Your task to perform on an android device: open app "Fetch Rewards" (install if not already installed) and go to login screen Image 0: 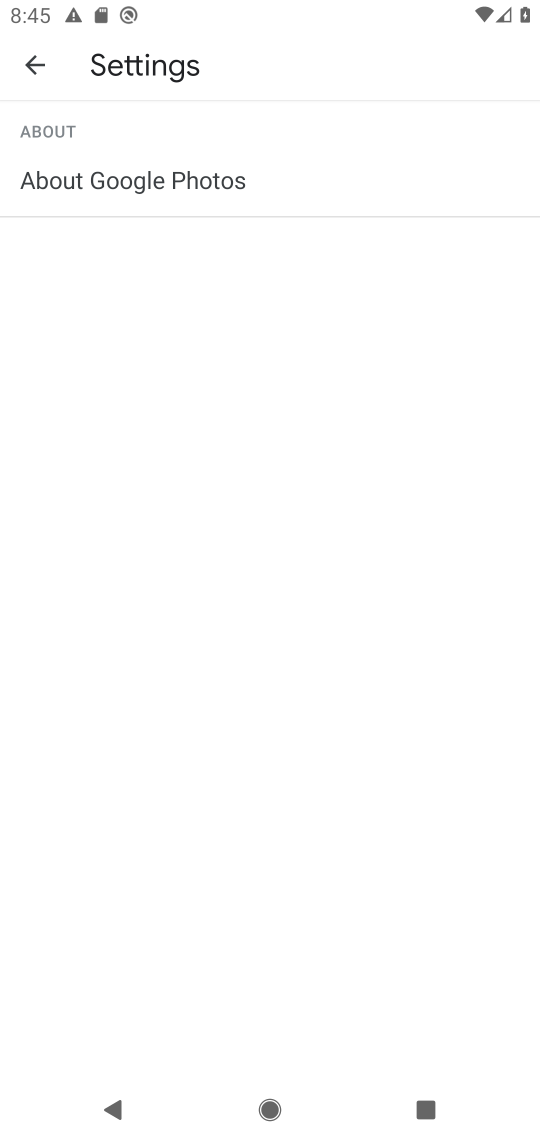
Step 0: press home button
Your task to perform on an android device: open app "Fetch Rewards" (install if not already installed) and go to login screen Image 1: 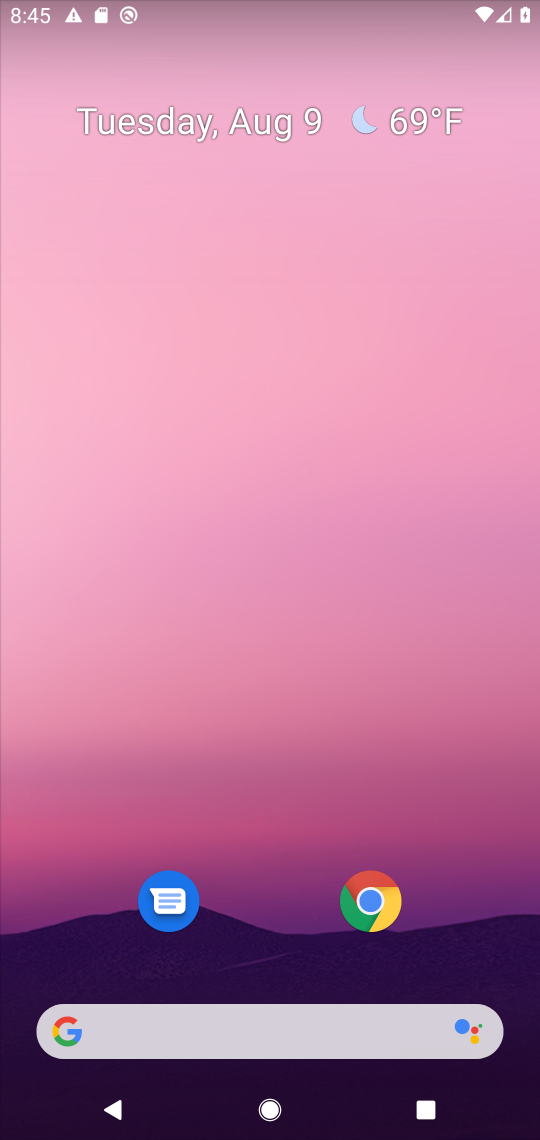
Step 1: drag from (245, 950) to (305, 162)
Your task to perform on an android device: open app "Fetch Rewards" (install if not already installed) and go to login screen Image 2: 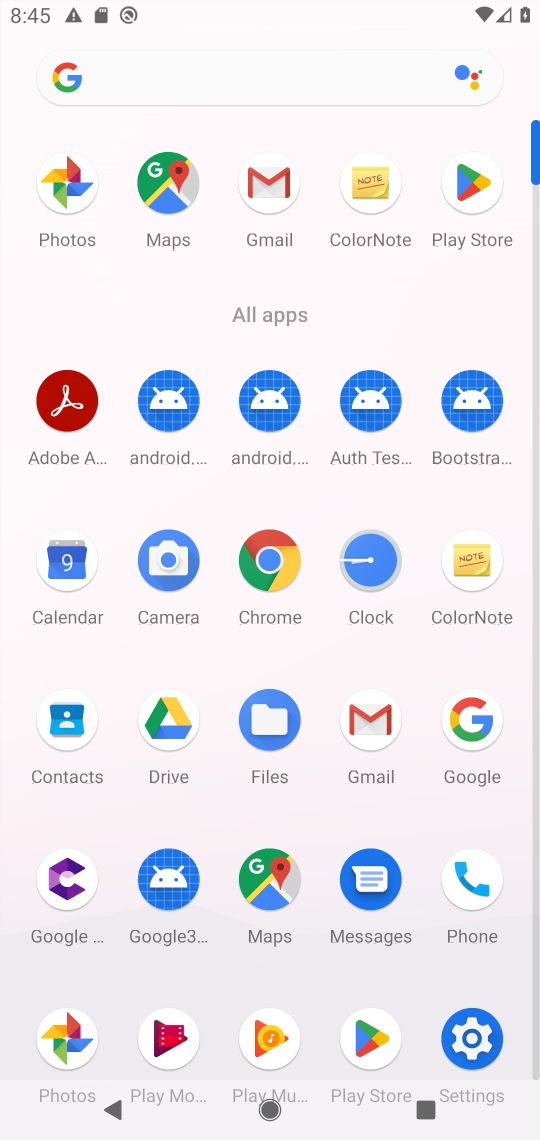
Step 2: click (468, 173)
Your task to perform on an android device: open app "Fetch Rewards" (install if not already installed) and go to login screen Image 3: 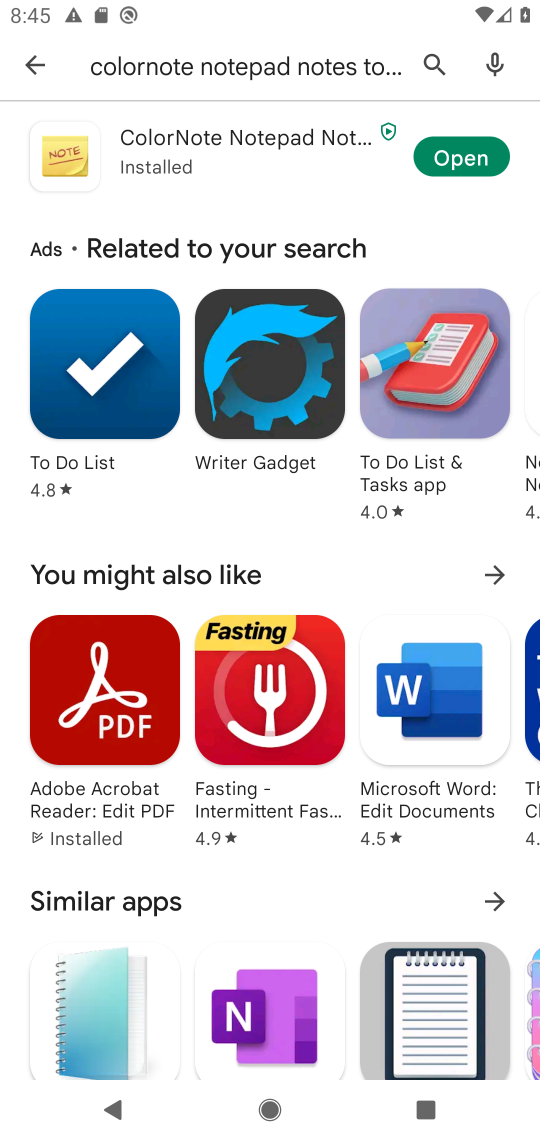
Step 3: click (30, 45)
Your task to perform on an android device: open app "Fetch Rewards" (install if not already installed) and go to login screen Image 4: 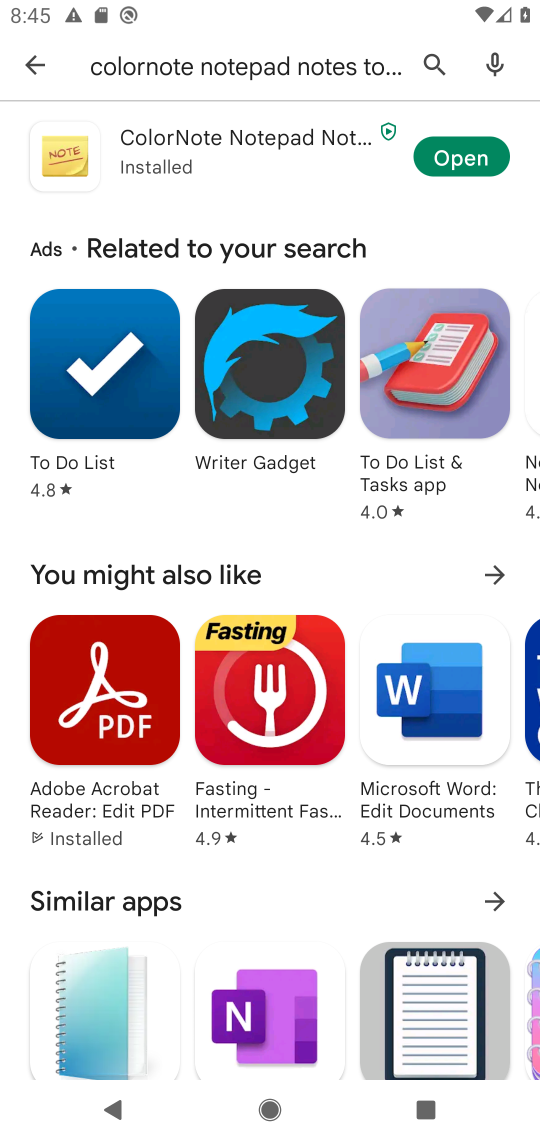
Step 4: click (33, 51)
Your task to perform on an android device: open app "Fetch Rewards" (install if not already installed) and go to login screen Image 5: 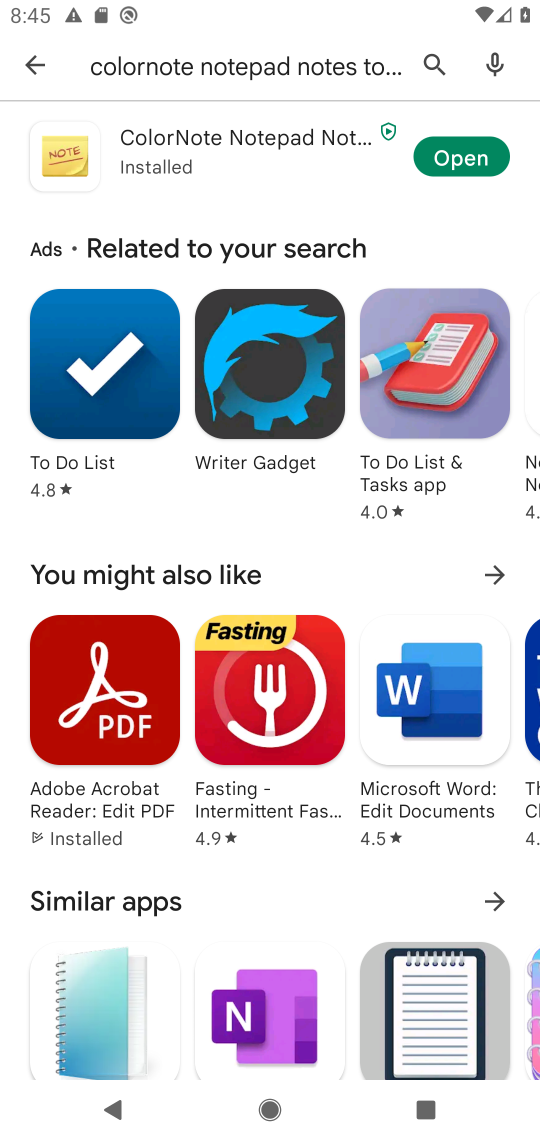
Step 5: click (33, 66)
Your task to perform on an android device: open app "Fetch Rewards" (install if not already installed) and go to login screen Image 6: 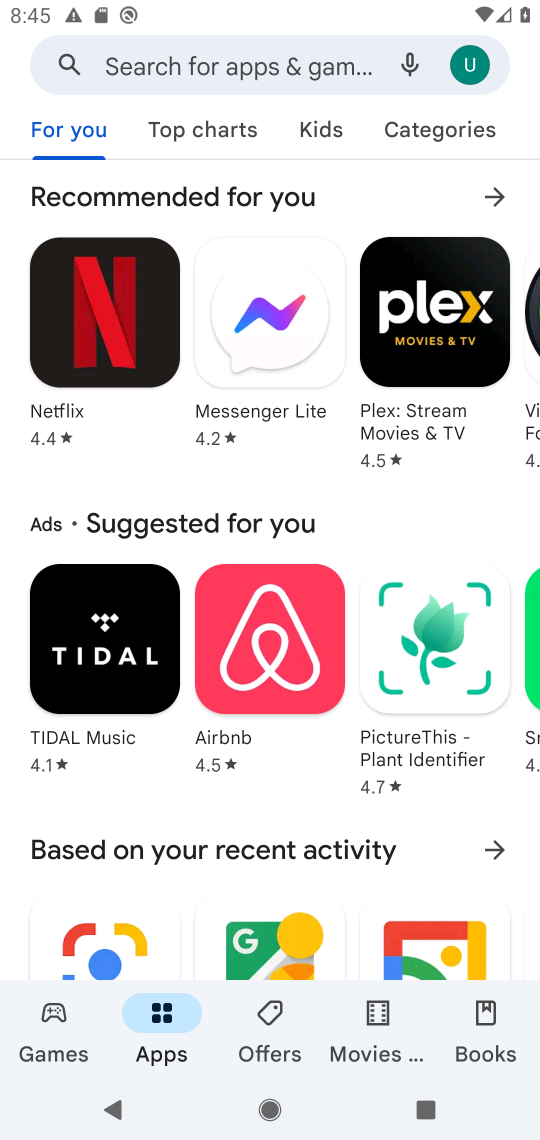
Step 6: click (254, 43)
Your task to perform on an android device: open app "Fetch Rewards" (install if not already installed) and go to login screen Image 7: 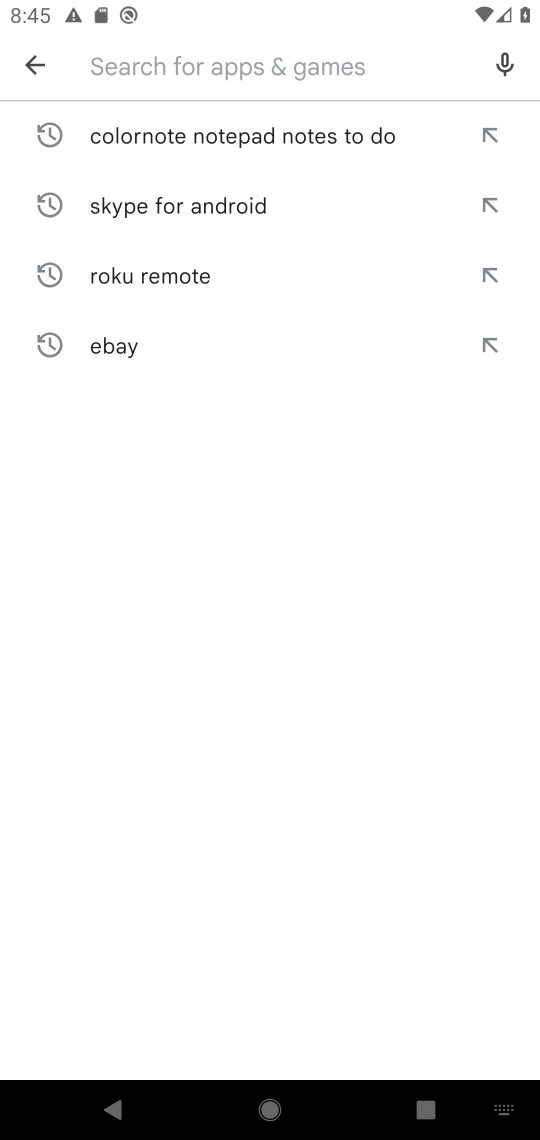
Step 7: type "Fetch Rewards "
Your task to perform on an android device: open app "Fetch Rewards" (install if not already installed) and go to login screen Image 8: 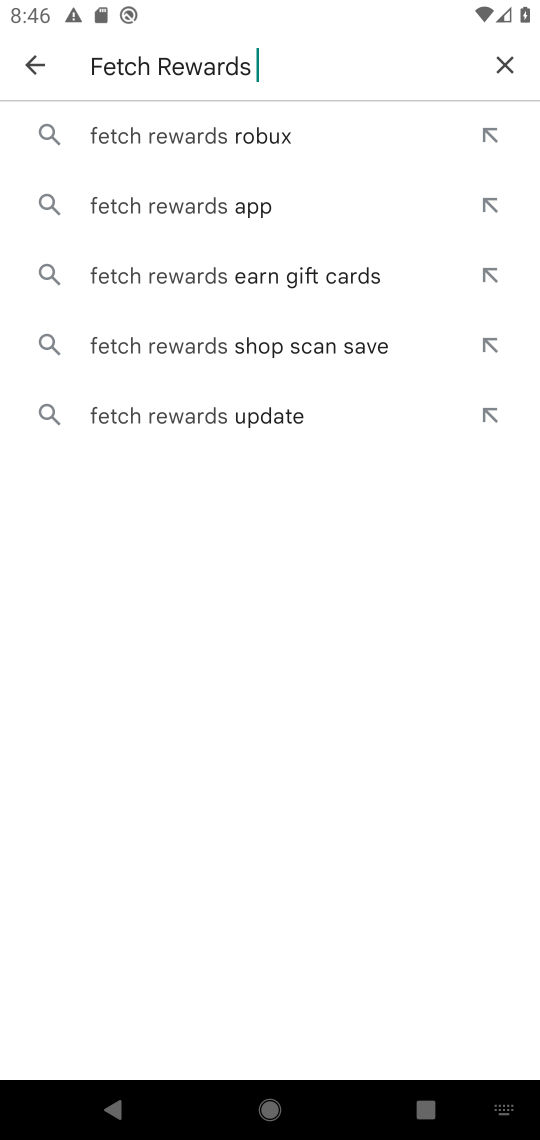
Step 8: click (188, 201)
Your task to perform on an android device: open app "Fetch Rewards" (install if not already installed) and go to login screen Image 9: 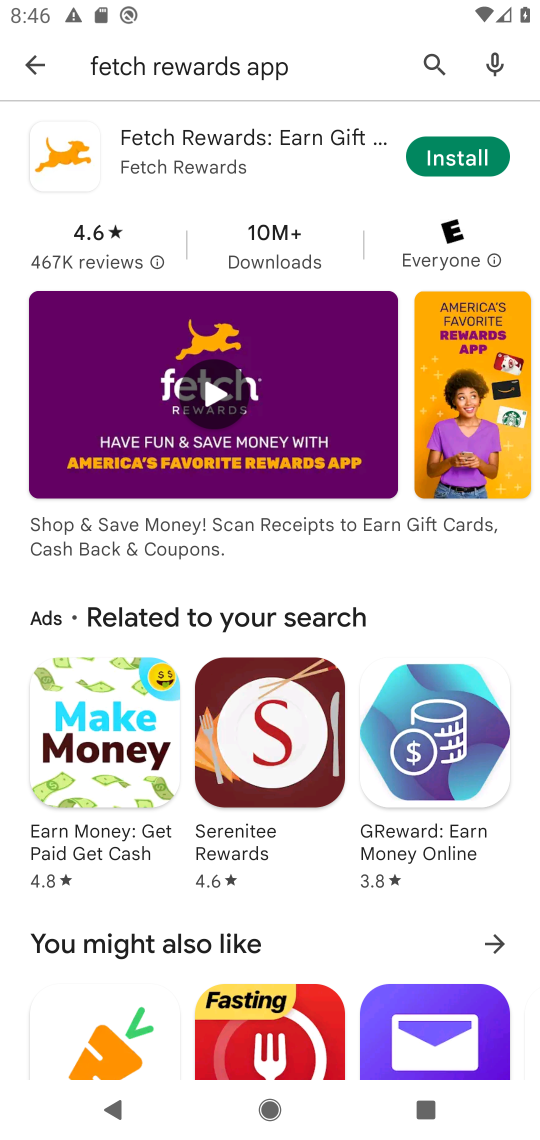
Step 9: click (443, 149)
Your task to perform on an android device: open app "Fetch Rewards" (install if not already installed) and go to login screen Image 10: 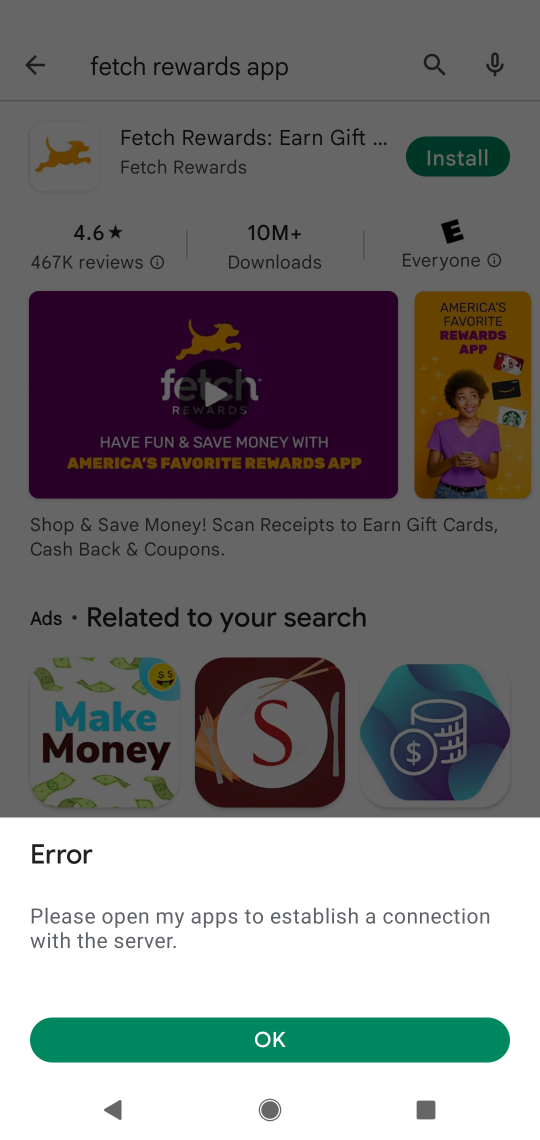
Step 10: click (288, 1015)
Your task to perform on an android device: open app "Fetch Rewards" (install if not already installed) and go to login screen Image 11: 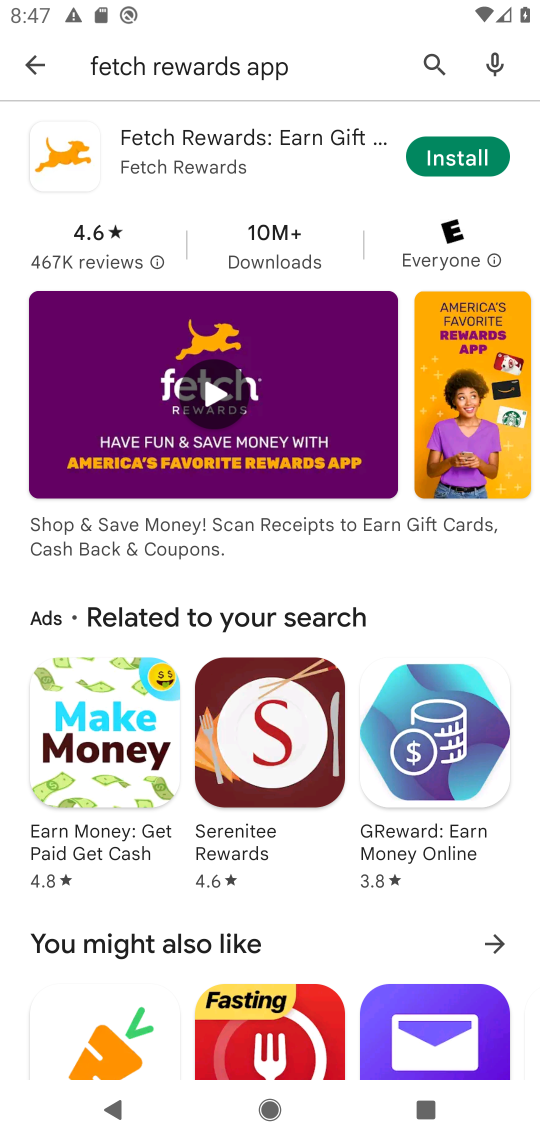
Step 11: click (468, 158)
Your task to perform on an android device: open app "Fetch Rewards" (install if not already installed) and go to login screen Image 12: 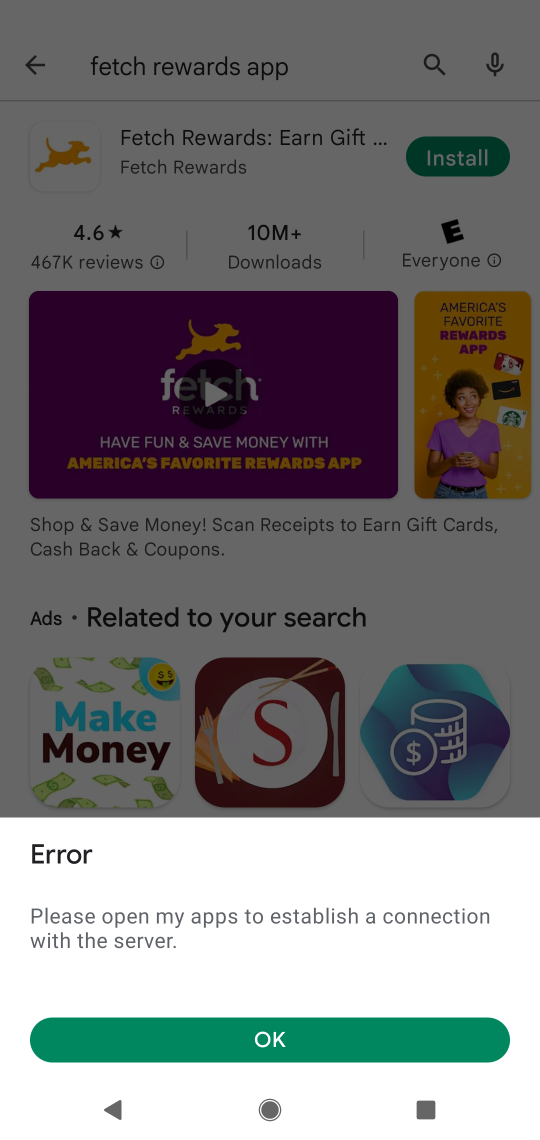
Step 12: task complete